Your task to perform on an android device: search for starred emails in the gmail app Image 0: 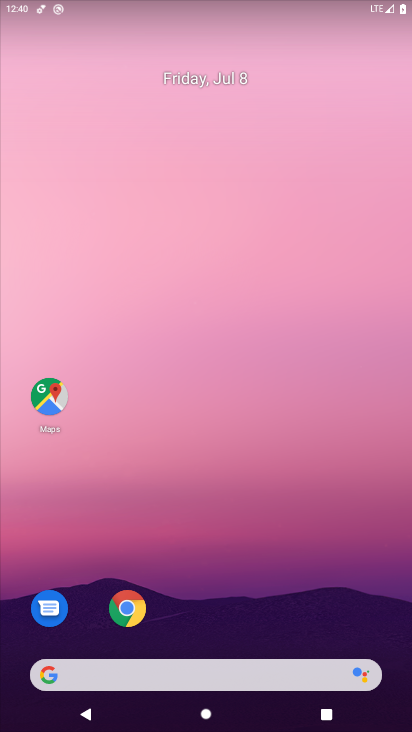
Step 0: drag from (209, 627) to (300, 46)
Your task to perform on an android device: search for starred emails in the gmail app Image 1: 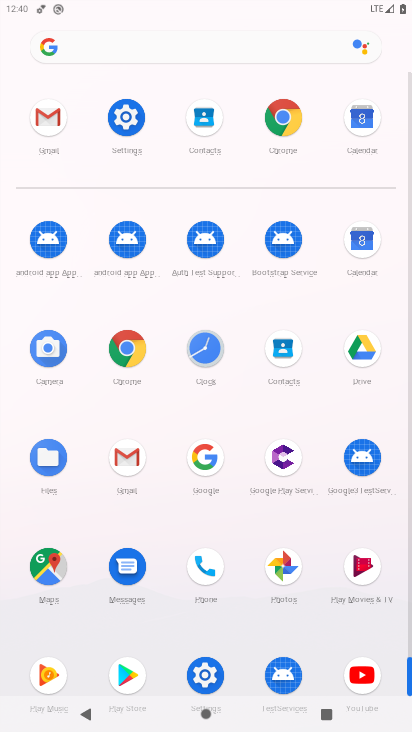
Step 1: click (126, 468)
Your task to perform on an android device: search for starred emails in the gmail app Image 2: 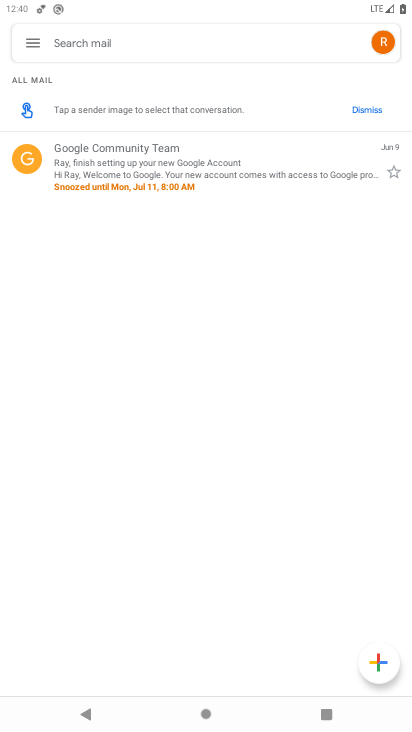
Step 2: click (30, 44)
Your task to perform on an android device: search for starred emails in the gmail app Image 3: 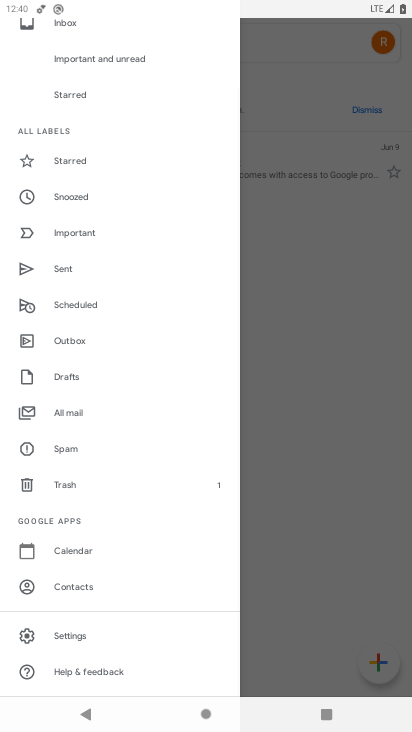
Step 3: click (47, 166)
Your task to perform on an android device: search for starred emails in the gmail app Image 4: 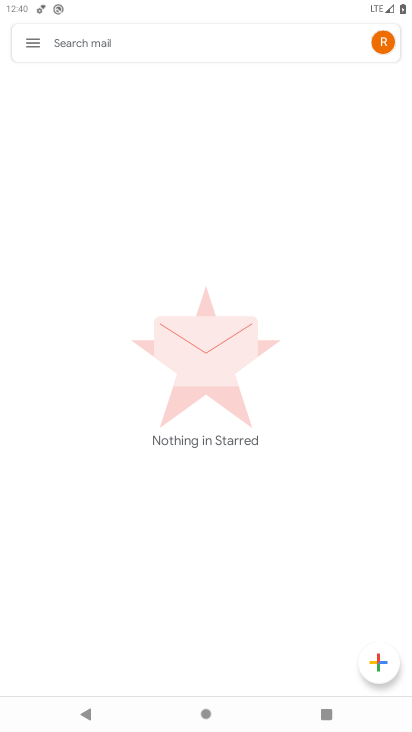
Step 4: task complete